Your task to perform on an android device: Show me popular games on the Play Store Image 0: 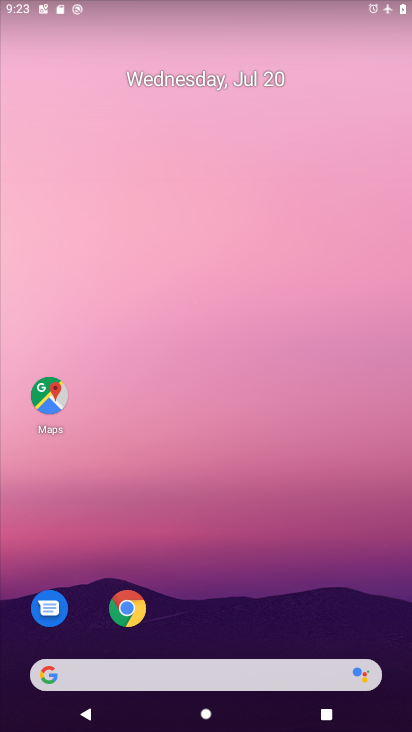
Step 0: drag from (208, 667) to (248, 325)
Your task to perform on an android device: Show me popular games on the Play Store Image 1: 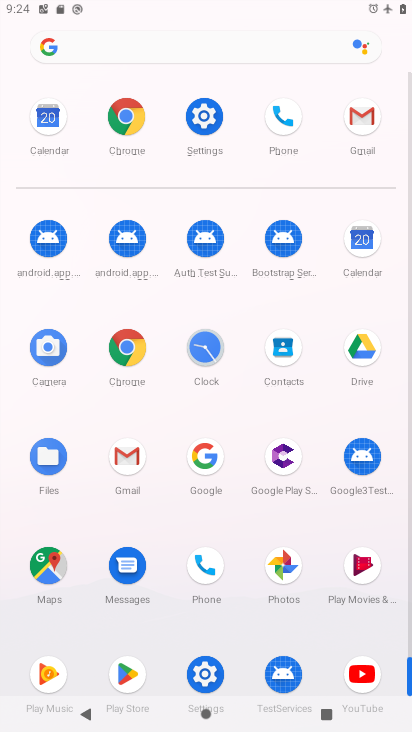
Step 1: click (134, 670)
Your task to perform on an android device: Show me popular games on the Play Store Image 2: 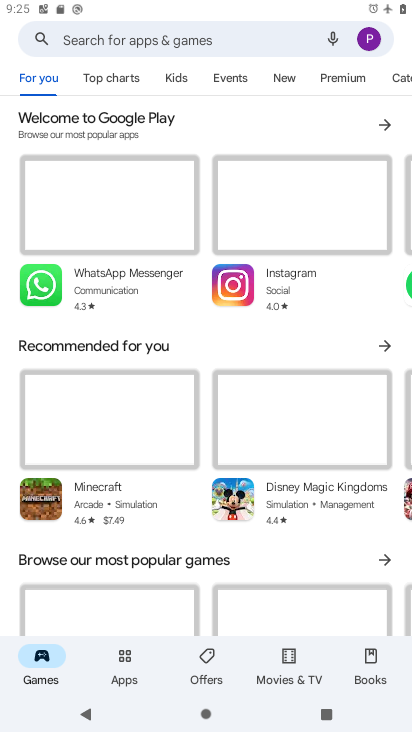
Step 2: task complete